Your task to perform on an android device: turn on showing notifications on the lock screen Image 0: 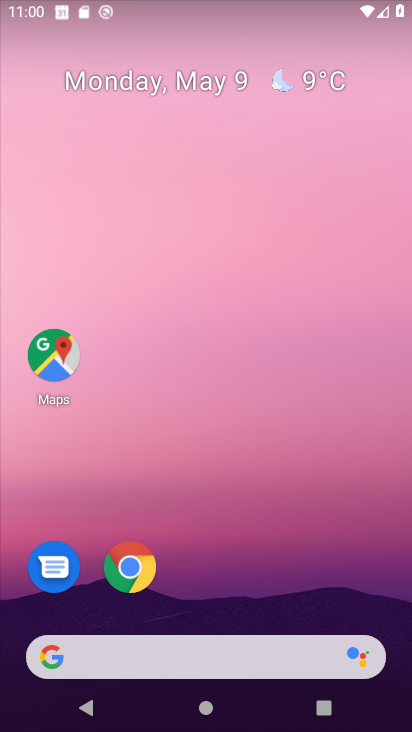
Step 0: drag from (209, 509) to (218, 28)
Your task to perform on an android device: turn on showing notifications on the lock screen Image 1: 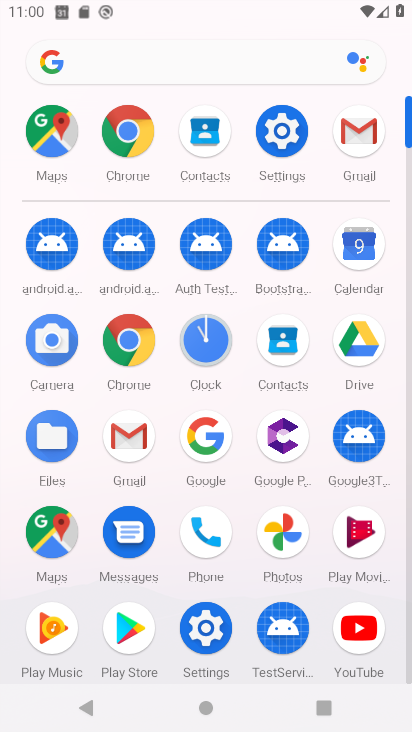
Step 1: click (279, 121)
Your task to perform on an android device: turn on showing notifications on the lock screen Image 2: 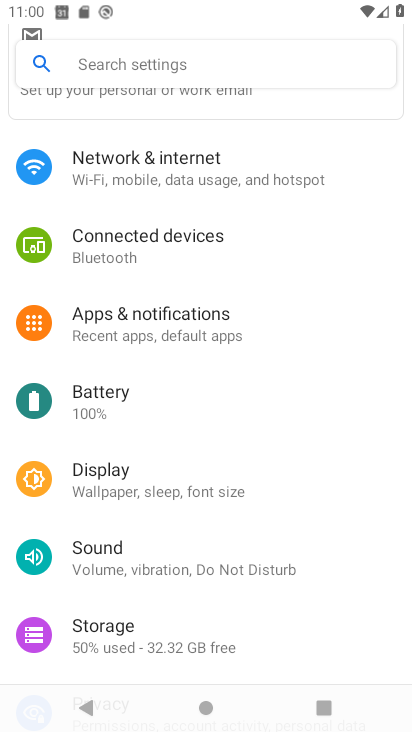
Step 2: drag from (48, 196) to (64, 552)
Your task to perform on an android device: turn on showing notifications on the lock screen Image 3: 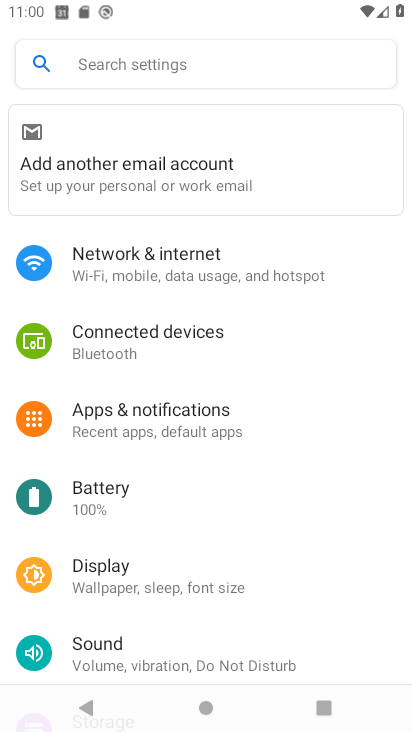
Step 3: click (242, 412)
Your task to perform on an android device: turn on showing notifications on the lock screen Image 4: 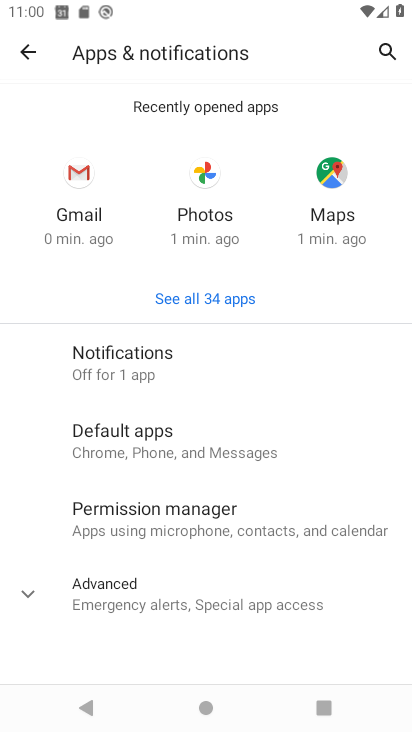
Step 4: click (162, 363)
Your task to perform on an android device: turn on showing notifications on the lock screen Image 5: 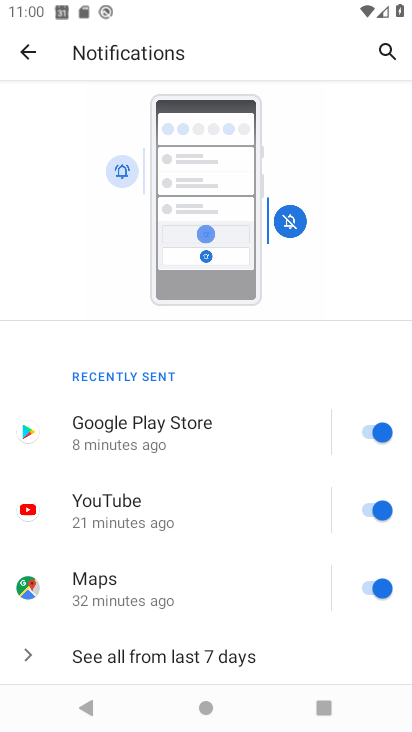
Step 5: drag from (101, 624) to (137, 141)
Your task to perform on an android device: turn on showing notifications on the lock screen Image 6: 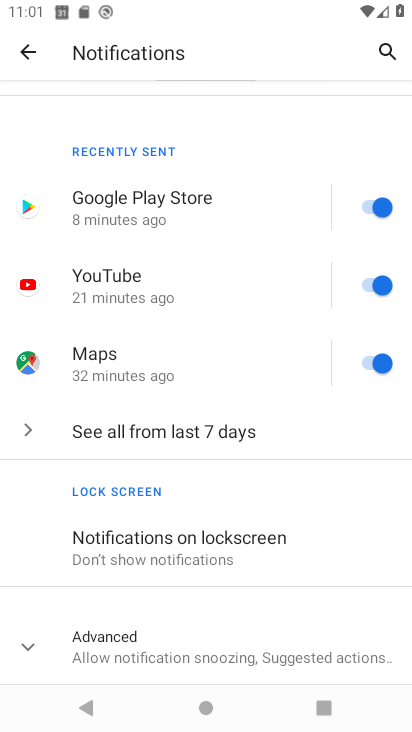
Step 6: click (243, 551)
Your task to perform on an android device: turn on showing notifications on the lock screen Image 7: 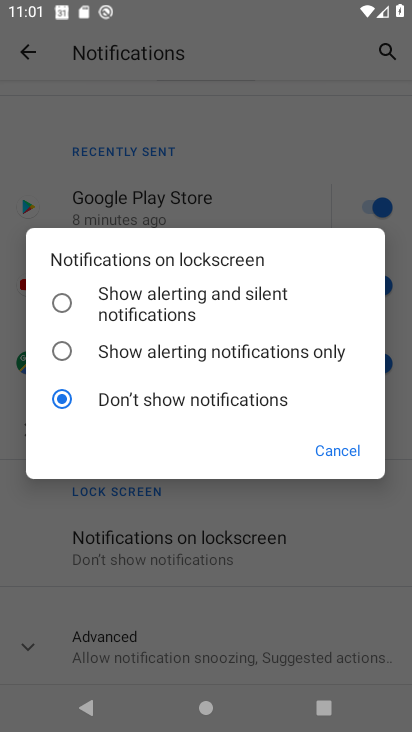
Step 7: click (67, 300)
Your task to perform on an android device: turn on showing notifications on the lock screen Image 8: 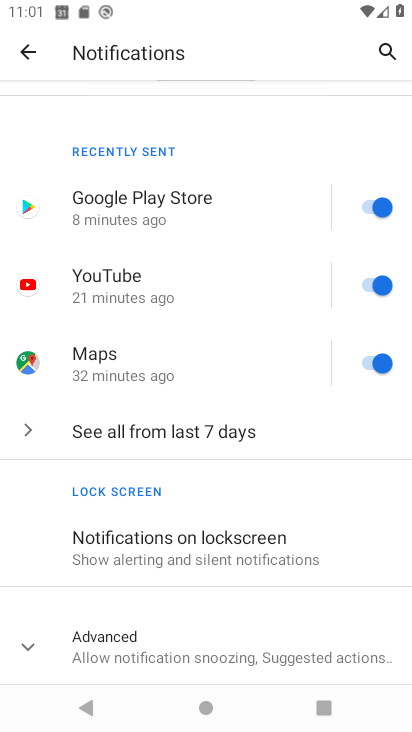
Step 8: task complete